Your task to perform on an android device: open chrome and create a bookmark for the current page Image 0: 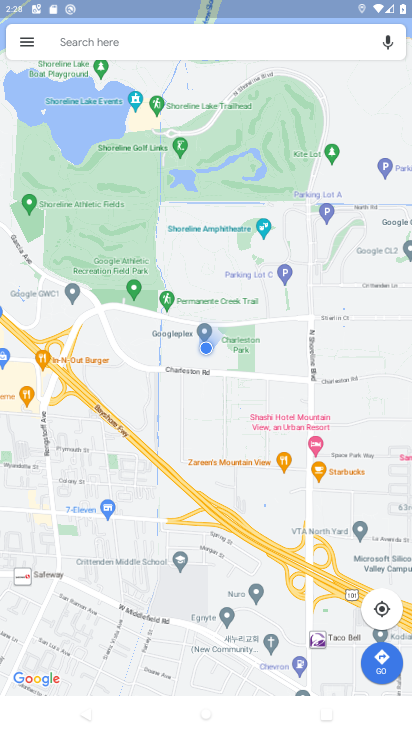
Step 0: press home button
Your task to perform on an android device: open chrome and create a bookmark for the current page Image 1: 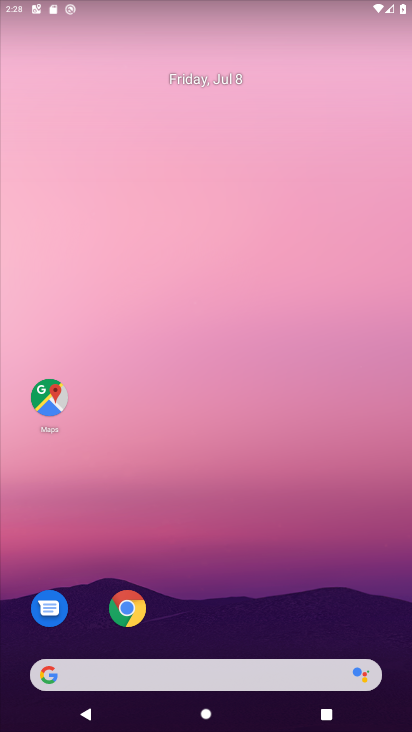
Step 1: drag from (315, 618) to (314, 160)
Your task to perform on an android device: open chrome and create a bookmark for the current page Image 2: 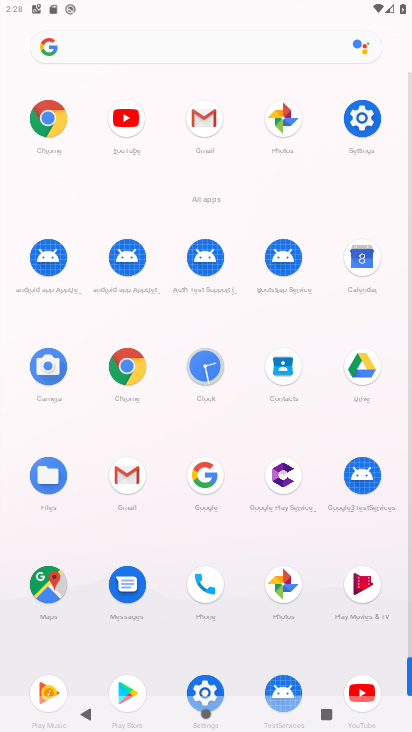
Step 2: click (52, 123)
Your task to perform on an android device: open chrome and create a bookmark for the current page Image 3: 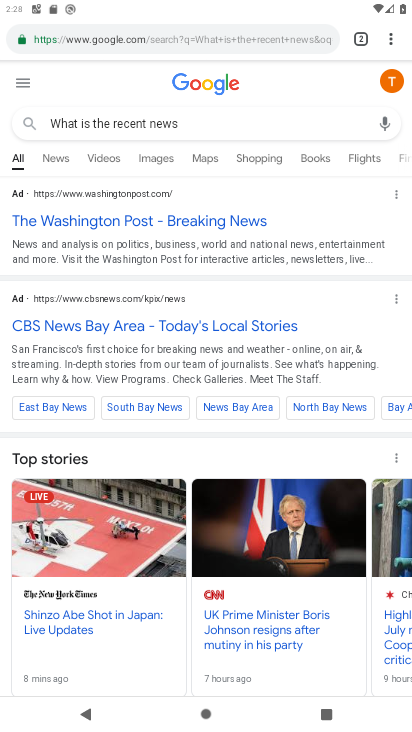
Step 3: click (397, 29)
Your task to perform on an android device: open chrome and create a bookmark for the current page Image 4: 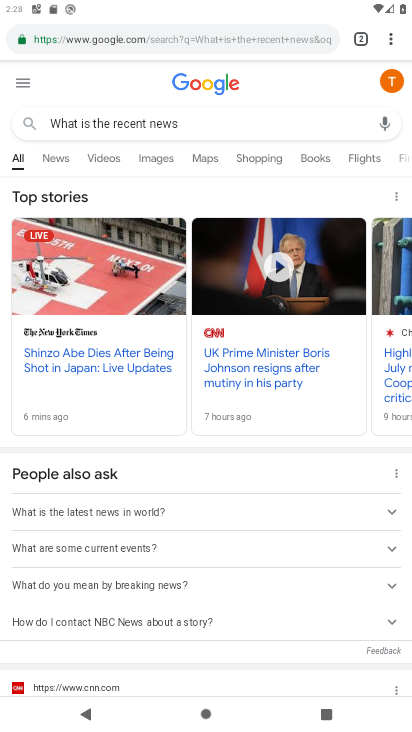
Step 4: click (406, 29)
Your task to perform on an android device: open chrome and create a bookmark for the current page Image 5: 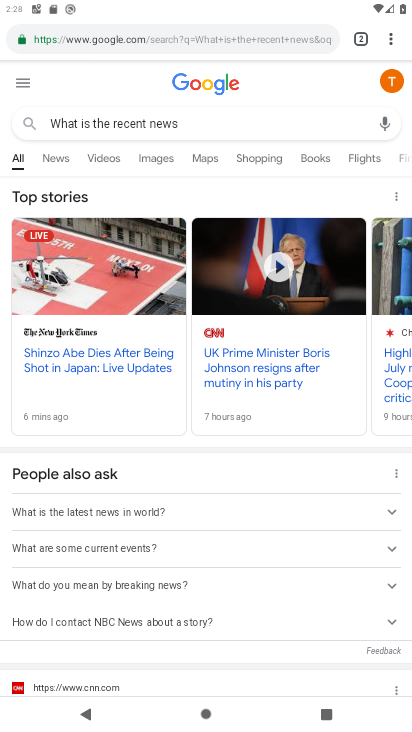
Step 5: click (391, 39)
Your task to perform on an android device: open chrome and create a bookmark for the current page Image 6: 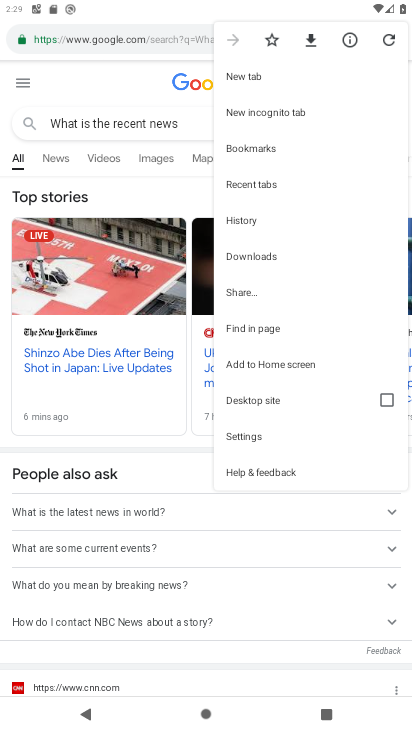
Step 6: click (270, 46)
Your task to perform on an android device: open chrome and create a bookmark for the current page Image 7: 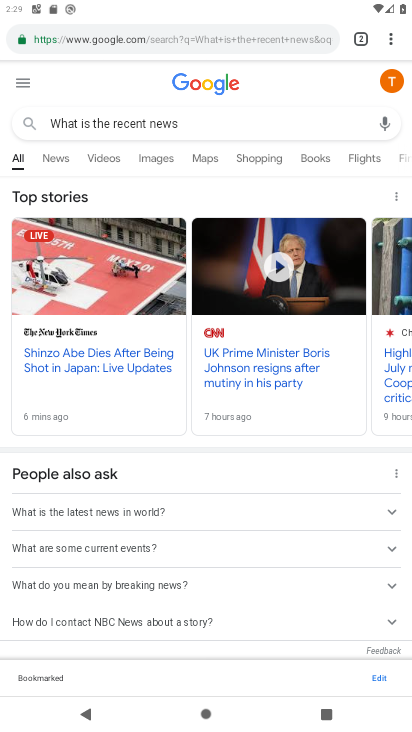
Step 7: task complete